Your task to perform on an android device: Show me popular videos on Youtube Image 0: 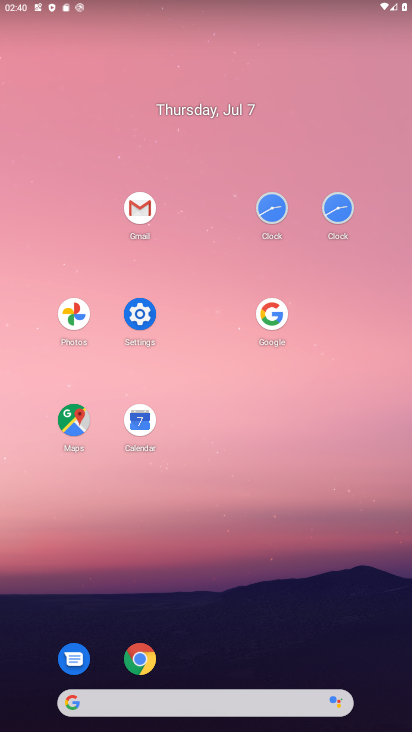
Step 0: drag from (229, 647) to (292, 149)
Your task to perform on an android device: Show me popular videos on Youtube Image 1: 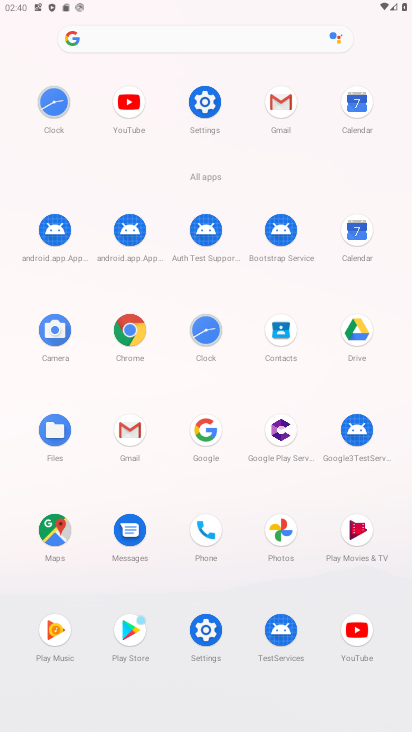
Step 1: click (365, 624)
Your task to perform on an android device: Show me popular videos on Youtube Image 2: 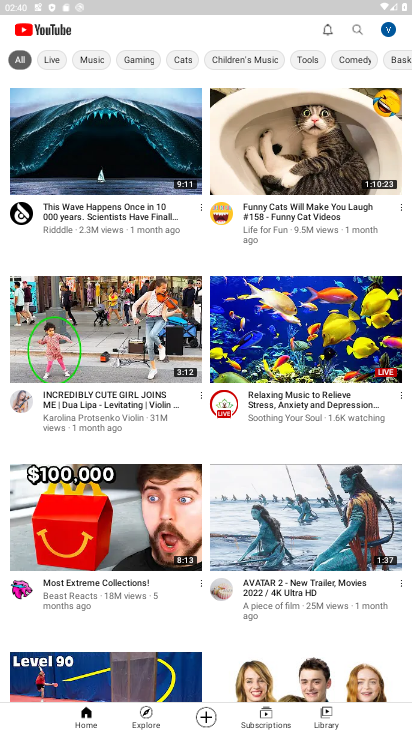
Step 2: task complete